Your task to perform on an android device: install app "Google Calendar" Image 0: 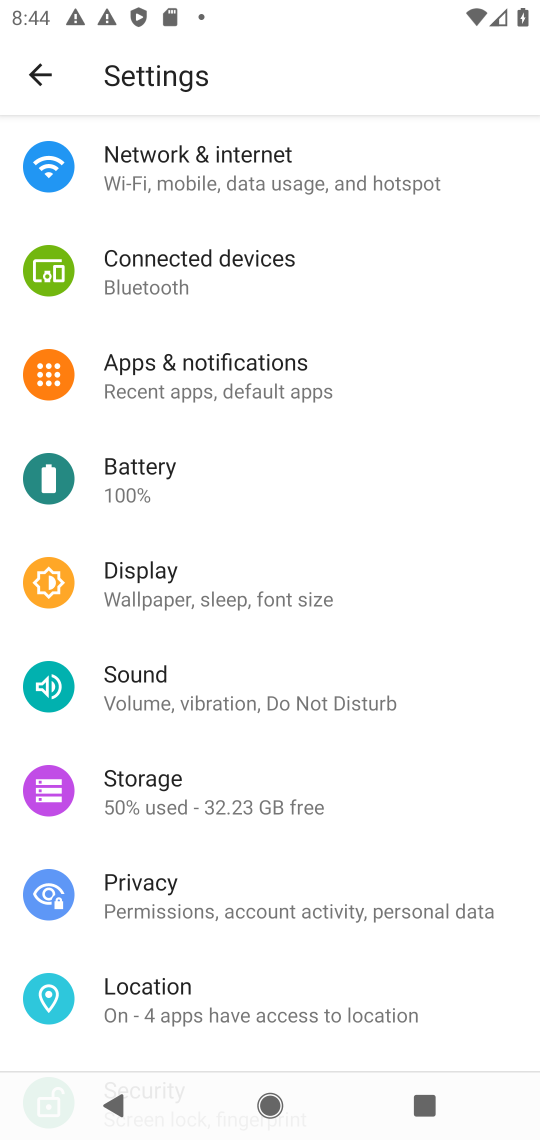
Step 0: press home button
Your task to perform on an android device: install app "Google Calendar" Image 1: 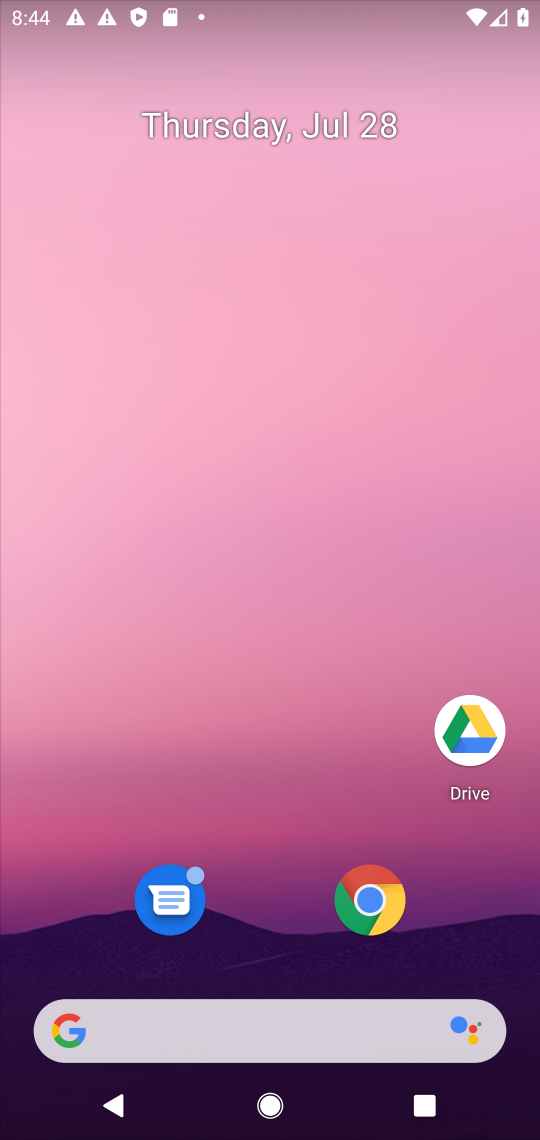
Step 1: drag from (334, 673) to (395, 59)
Your task to perform on an android device: install app "Google Calendar" Image 2: 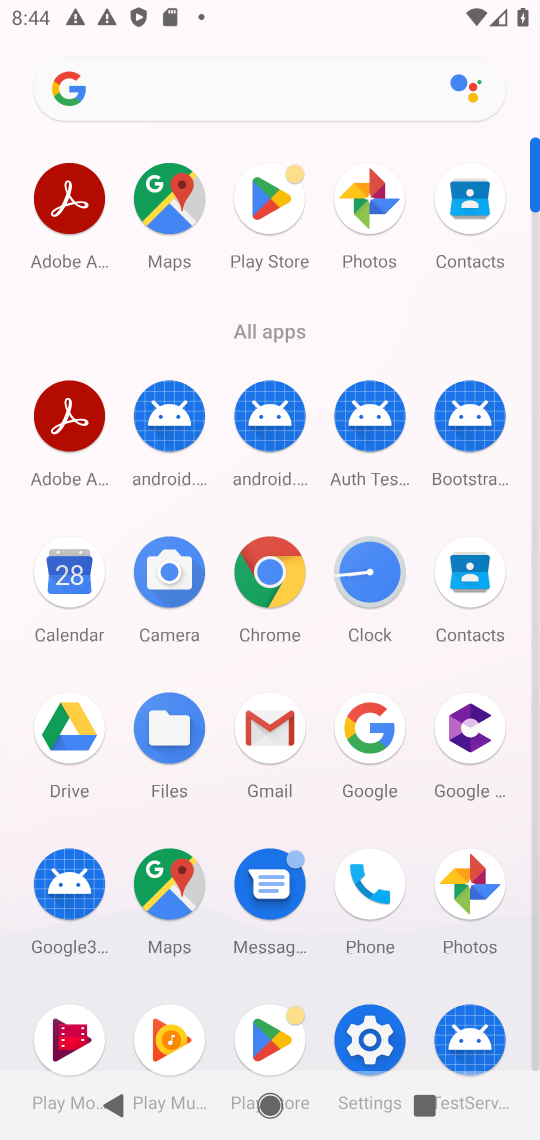
Step 2: click (57, 581)
Your task to perform on an android device: install app "Google Calendar" Image 3: 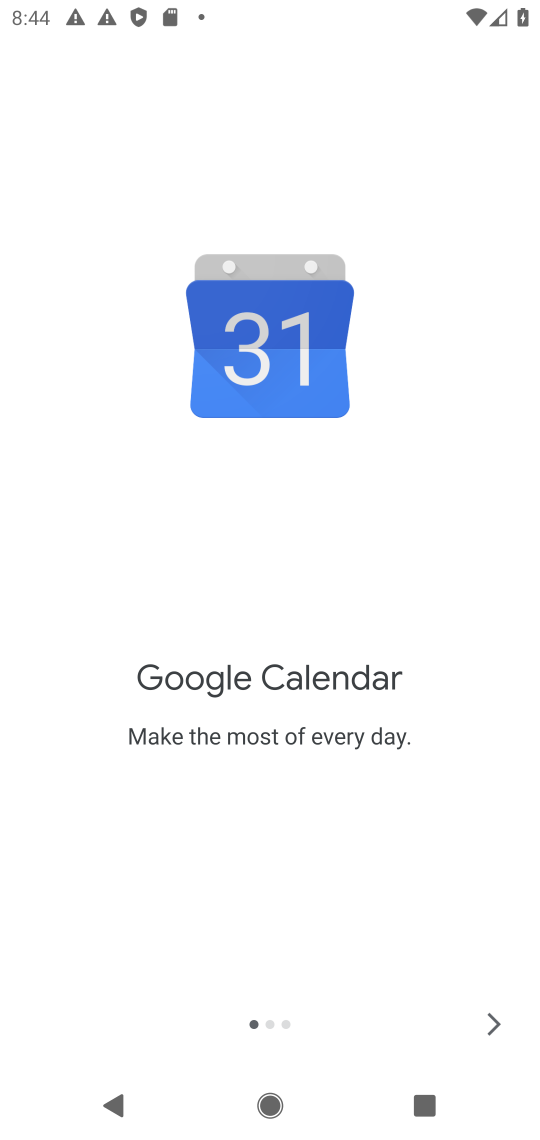
Step 3: click (503, 1027)
Your task to perform on an android device: install app "Google Calendar" Image 4: 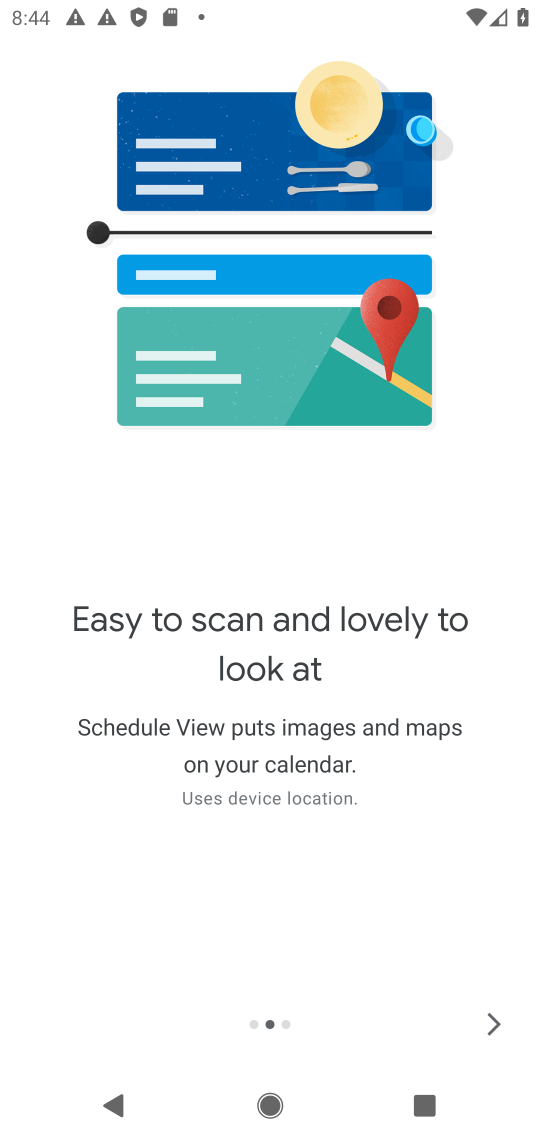
Step 4: click (503, 1027)
Your task to perform on an android device: install app "Google Calendar" Image 5: 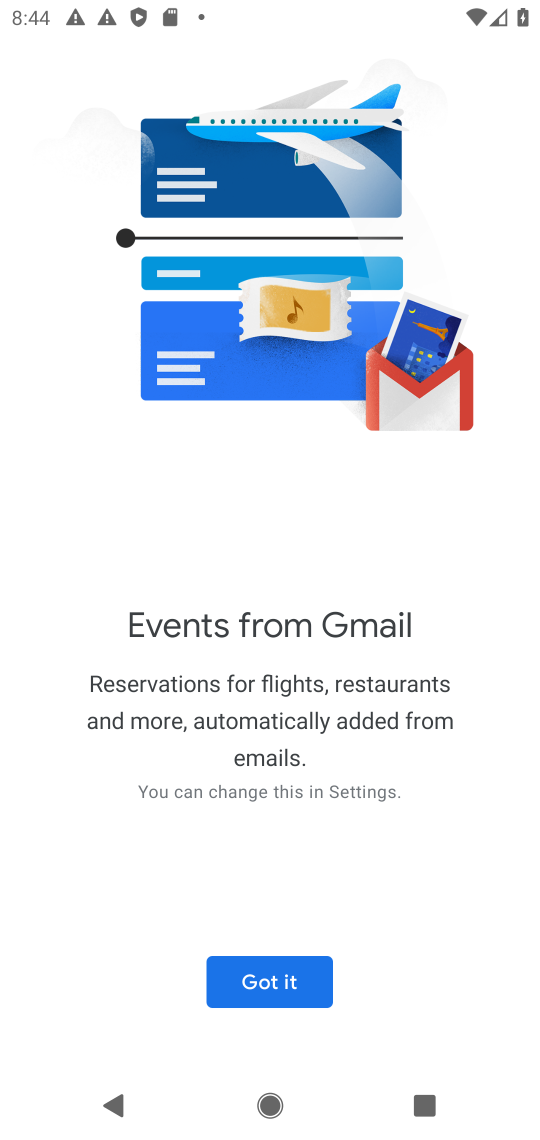
Step 5: click (503, 1027)
Your task to perform on an android device: install app "Google Calendar" Image 6: 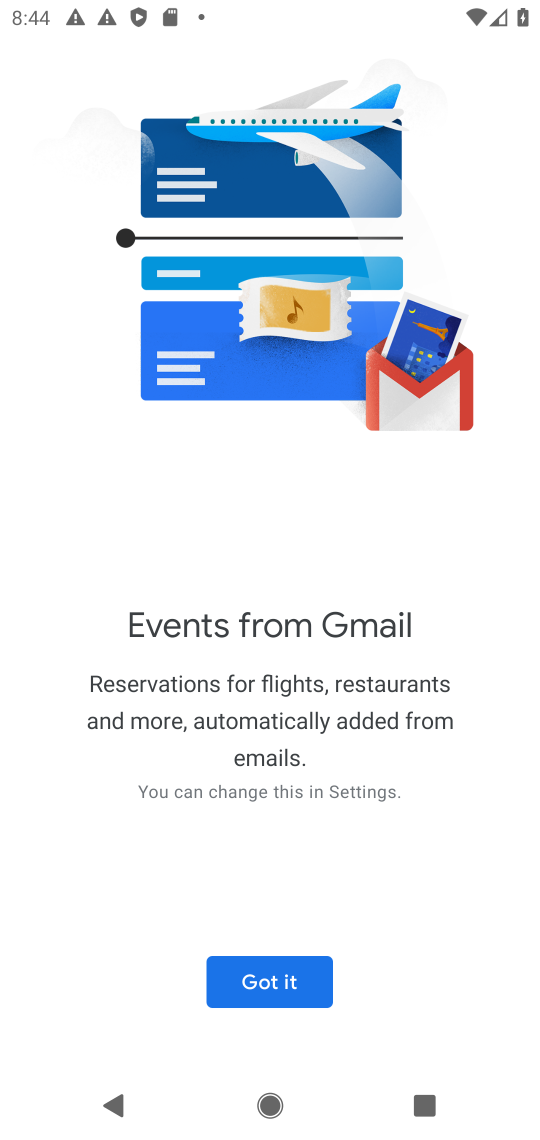
Step 6: click (309, 981)
Your task to perform on an android device: install app "Google Calendar" Image 7: 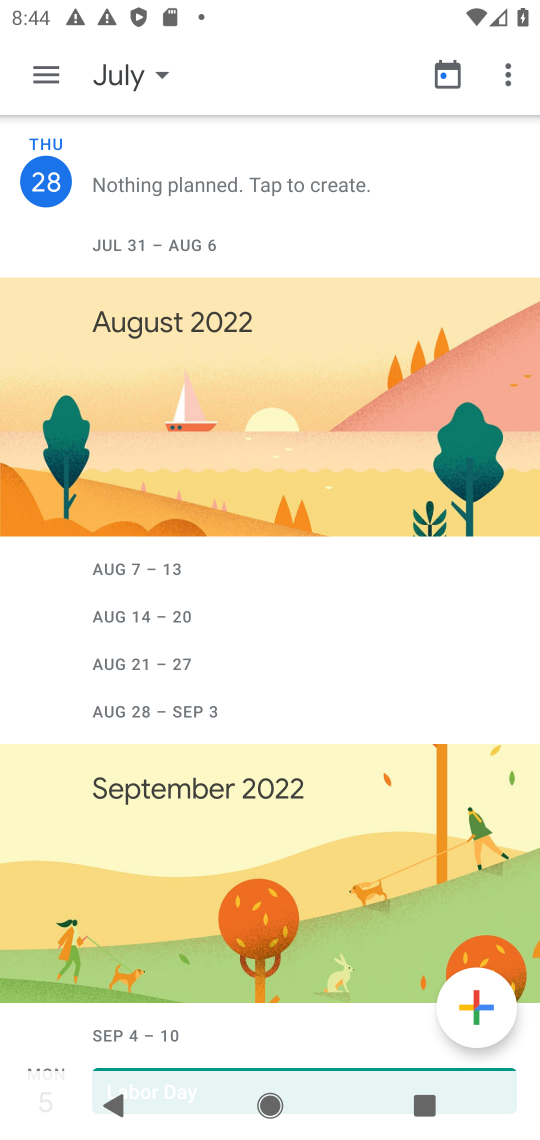
Step 7: task complete